Your task to perform on an android device: change the clock display to digital Image 0: 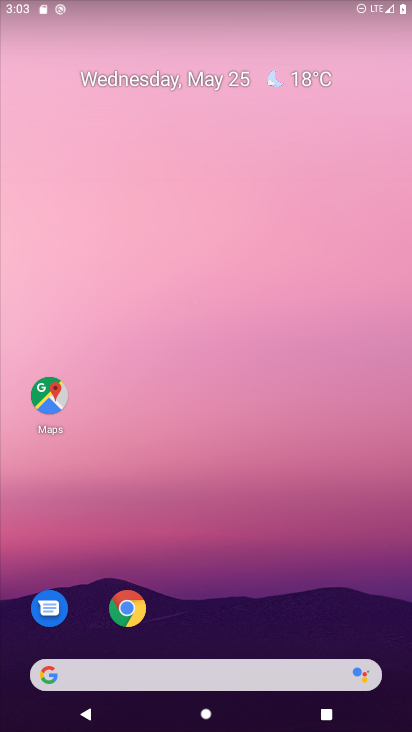
Step 0: drag from (386, 629) to (325, 65)
Your task to perform on an android device: change the clock display to digital Image 1: 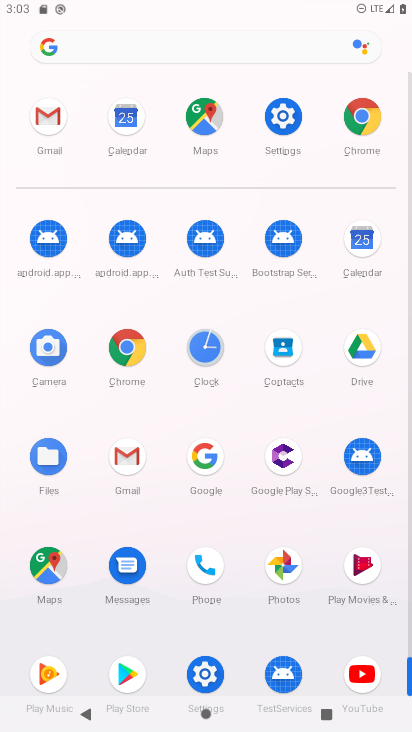
Step 1: click (203, 343)
Your task to perform on an android device: change the clock display to digital Image 2: 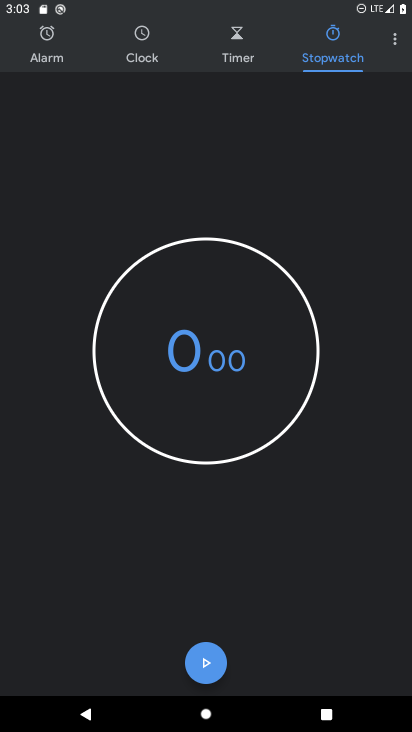
Step 2: click (396, 44)
Your task to perform on an android device: change the clock display to digital Image 3: 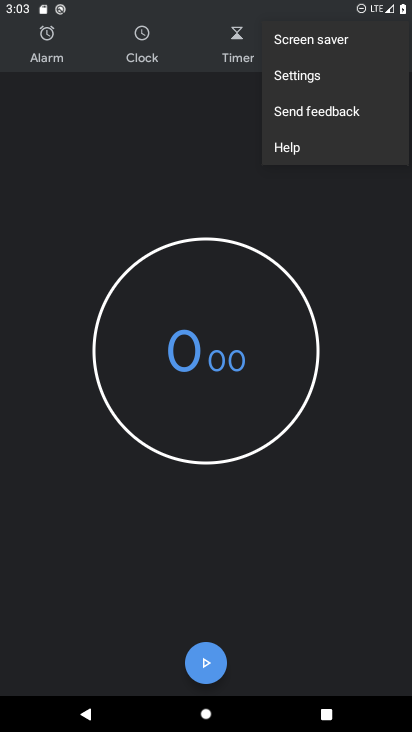
Step 3: click (298, 76)
Your task to perform on an android device: change the clock display to digital Image 4: 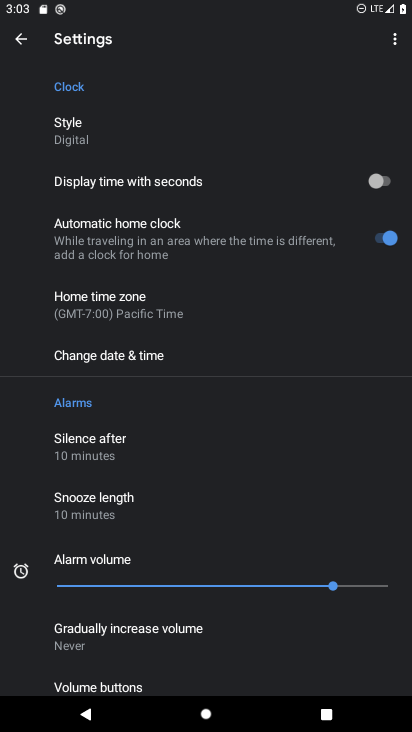
Step 4: task complete